Your task to perform on an android device: Open display settings Image 0: 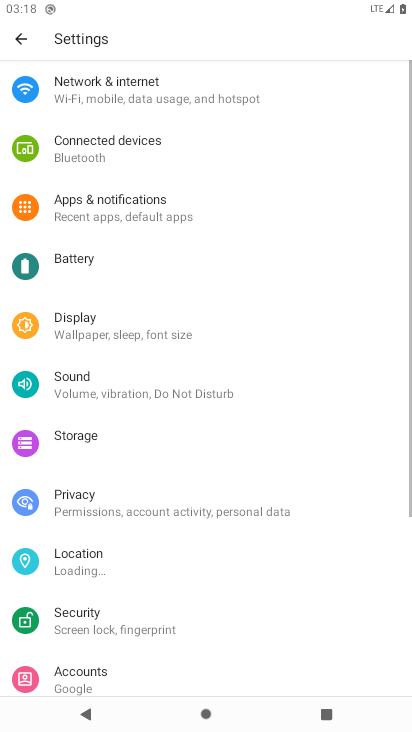
Step 0: drag from (232, 635) to (264, 135)
Your task to perform on an android device: Open display settings Image 1: 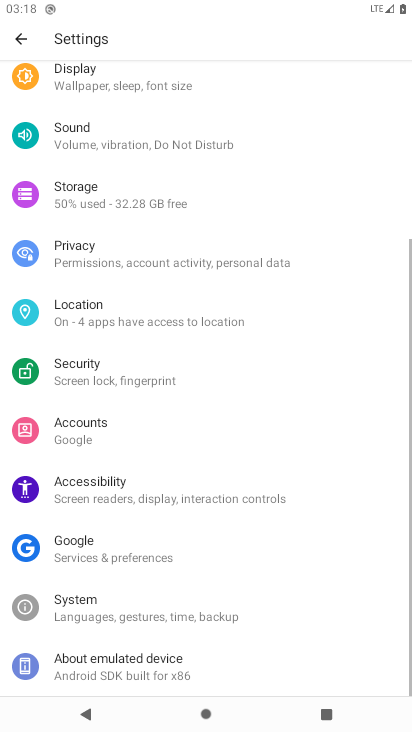
Step 1: press home button
Your task to perform on an android device: Open display settings Image 2: 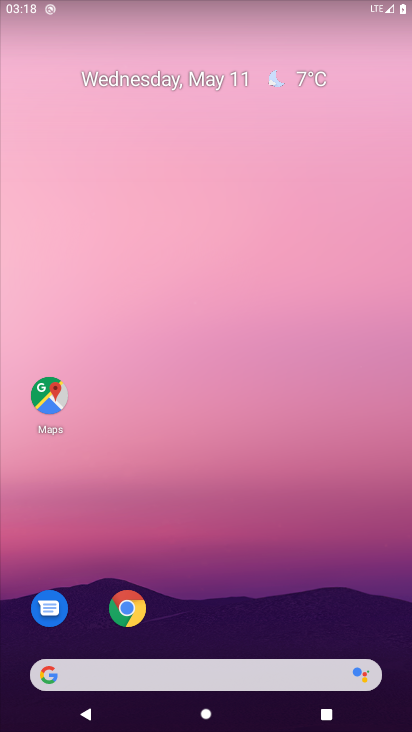
Step 2: drag from (238, 627) to (247, 113)
Your task to perform on an android device: Open display settings Image 3: 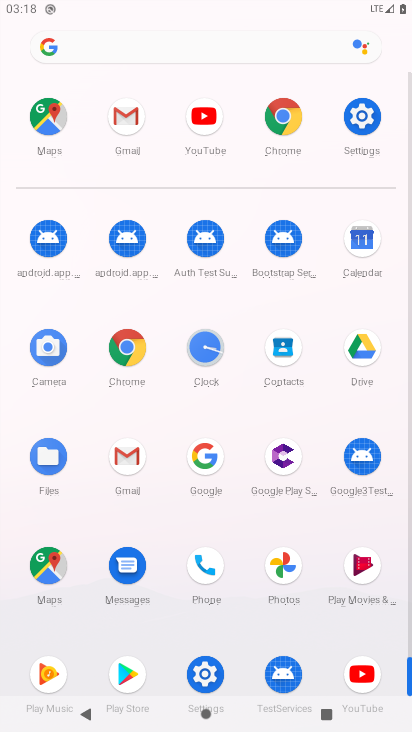
Step 3: click (367, 111)
Your task to perform on an android device: Open display settings Image 4: 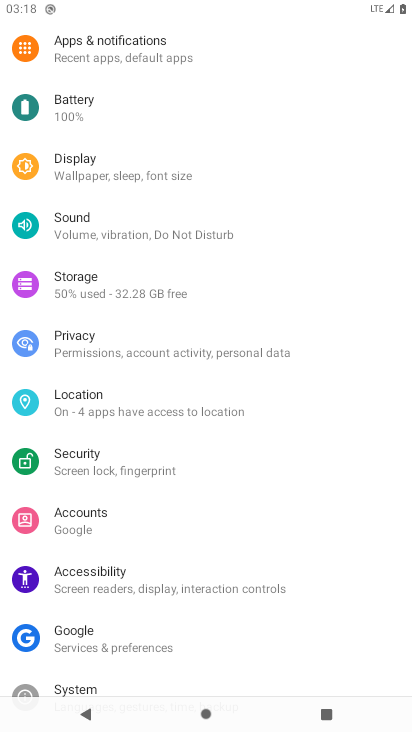
Step 4: click (96, 156)
Your task to perform on an android device: Open display settings Image 5: 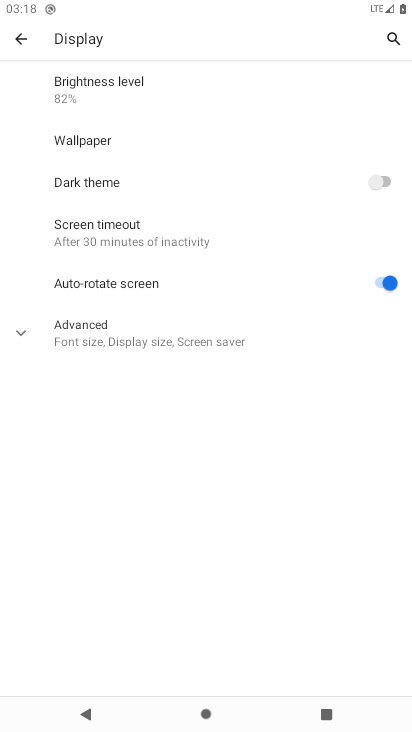
Step 5: click (26, 328)
Your task to perform on an android device: Open display settings Image 6: 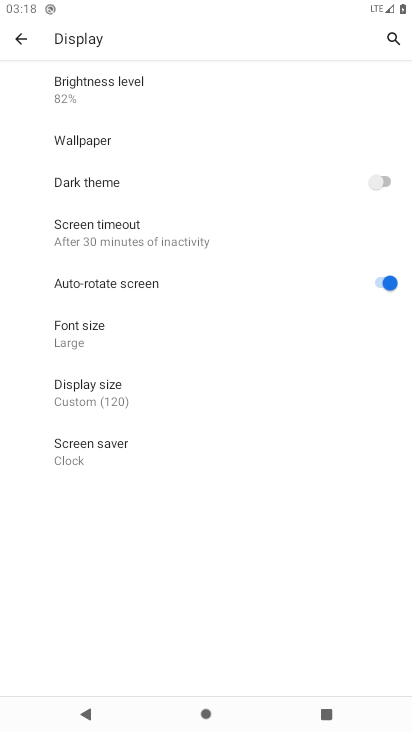
Step 6: task complete